Your task to perform on an android device: Open Youtube and go to "Your channel" Image 0: 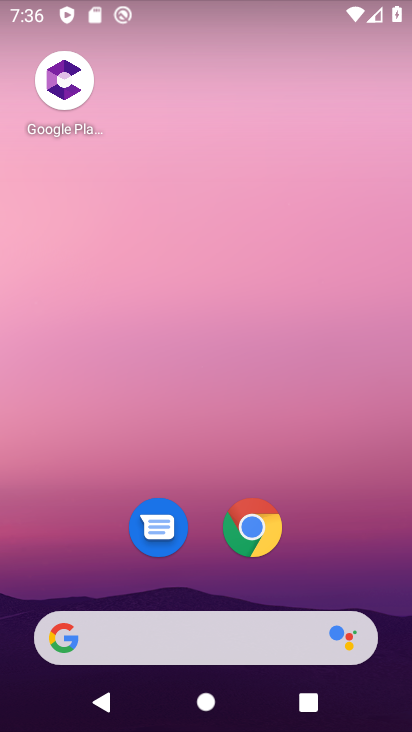
Step 0: drag from (206, 573) to (195, 153)
Your task to perform on an android device: Open Youtube and go to "Your channel" Image 1: 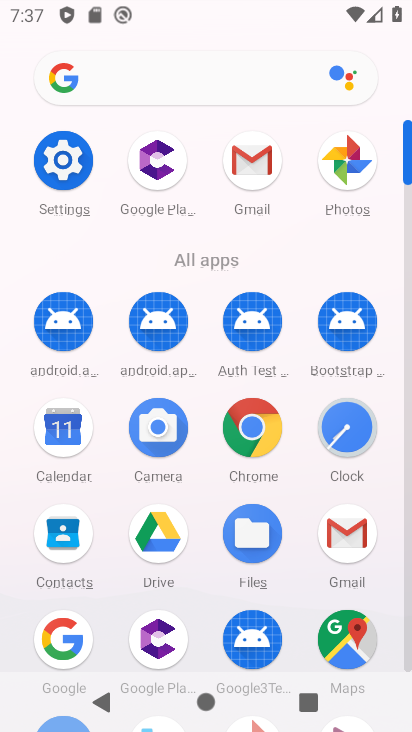
Step 1: drag from (202, 661) to (213, 123)
Your task to perform on an android device: Open Youtube and go to "Your channel" Image 2: 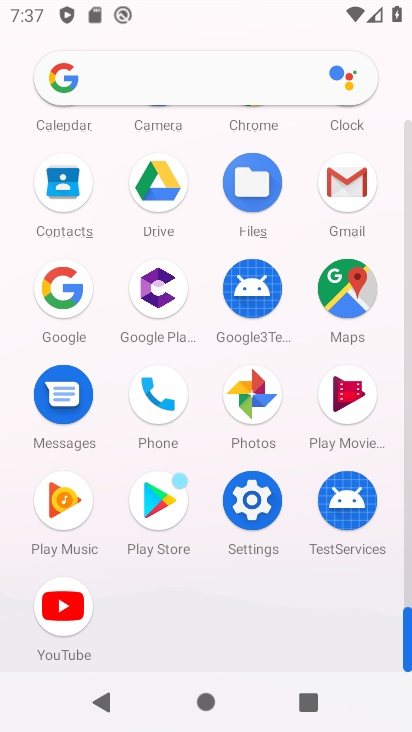
Step 2: click (74, 612)
Your task to perform on an android device: Open Youtube and go to "Your channel" Image 3: 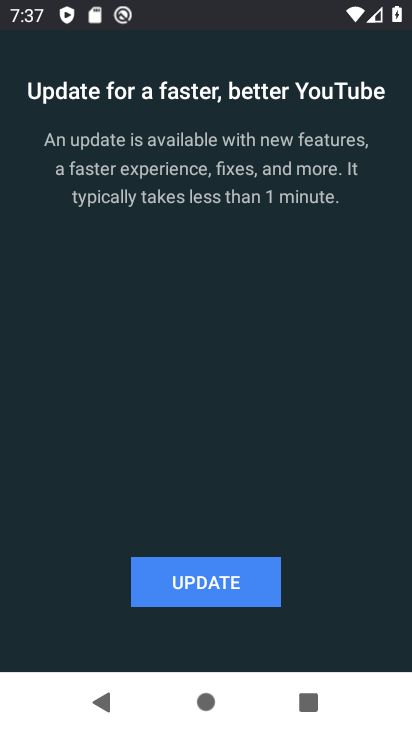
Step 3: click (177, 596)
Your task to perform on an android device: Open Youtube and go to "Your channel" Image 4: 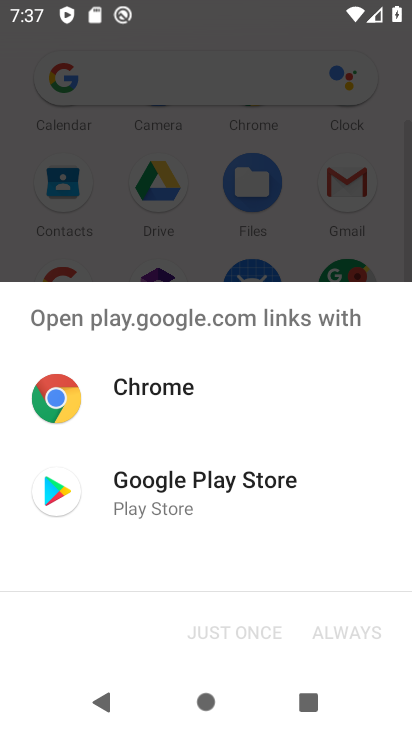
Step 4: click (195, 521)
Your task to perform on an android device: Open Youtube and go to "Your channel" Image 5: 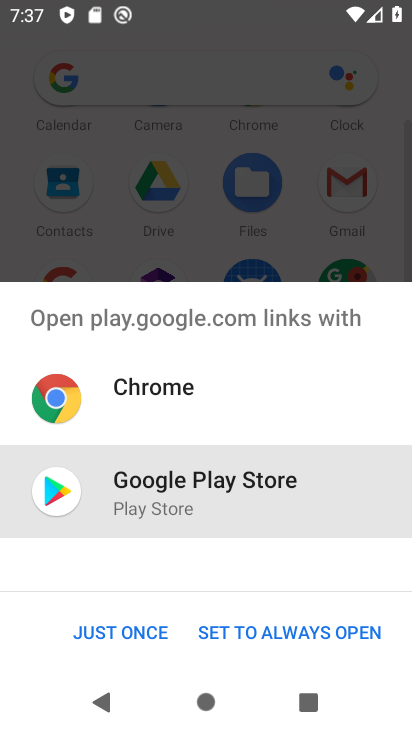
Step 5: click (127, 630)
Your task to perform on an android device: Open Youtube and go to "Your channel" Image 6: 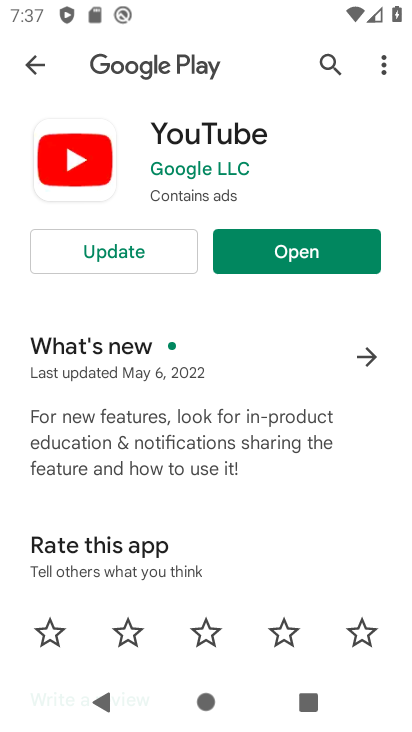
Step 6: click (108, 262)
Your task to perform on an android device: Open Youtube and go to "Your channel" Image 7: 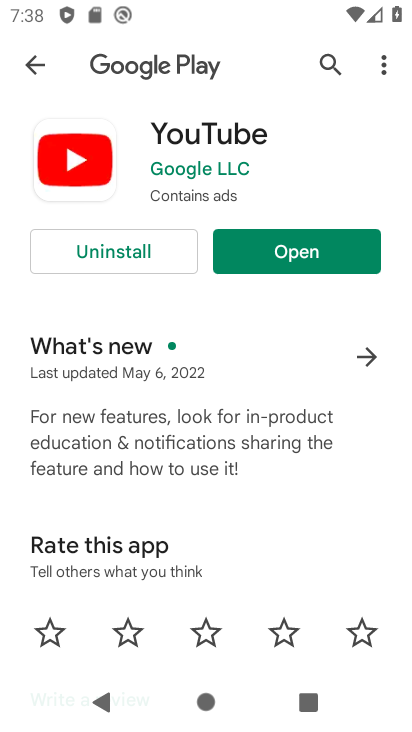
Step 7: click (308, 235)
Your task to perform on an android device: Open Youtube and go to "Your channel" Image 8: 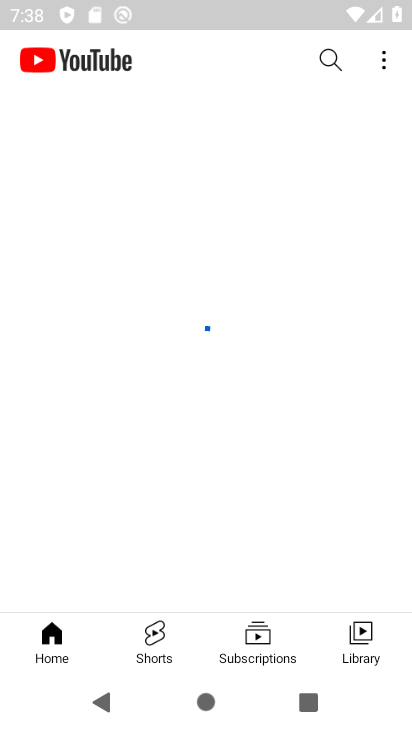
Step 8: click (337, 53)
Your task to perform on an android device: Open Youtube and go to "Your channel" Image 9: 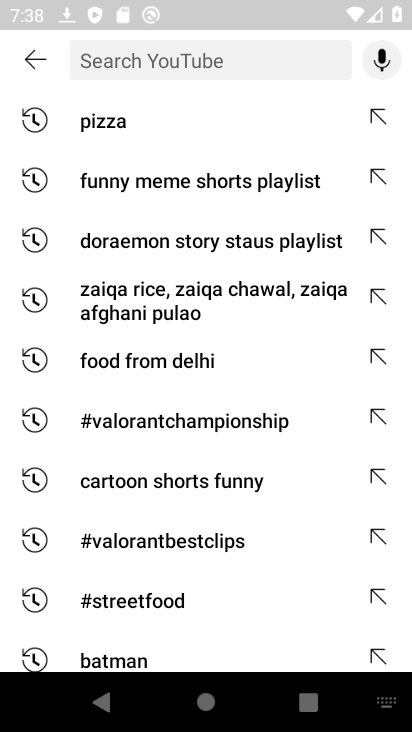
Step 9: type "your channel"
Your task to perform on an android device: Open Youtube and go to "Your channel" Image 10: 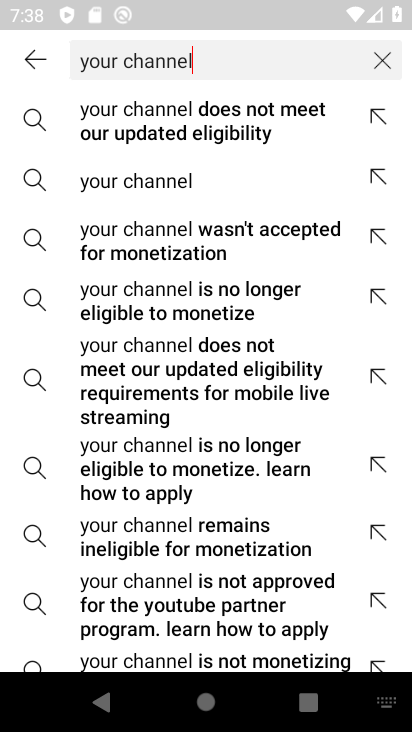
Step 10: click (154, 195)
Your task to perform on an android device: Open Youtube and go to "Your channel" Image 11: 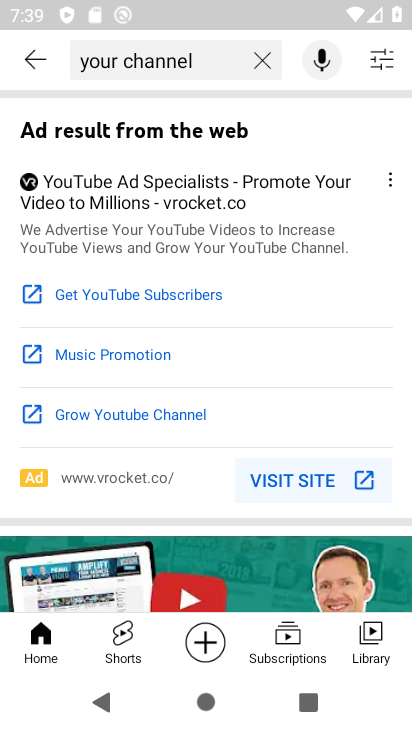
Step 11: task complete